Your task to perform on an android device: allow cookies in the chrome app Image 0: 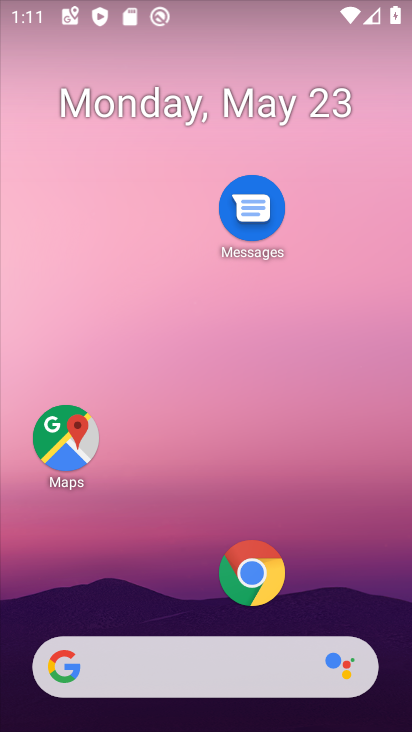
Step 0: drag from (200, 552) to (229, 98)
Your task to perform on an android device: allow cookies in the chrome app Image 1: 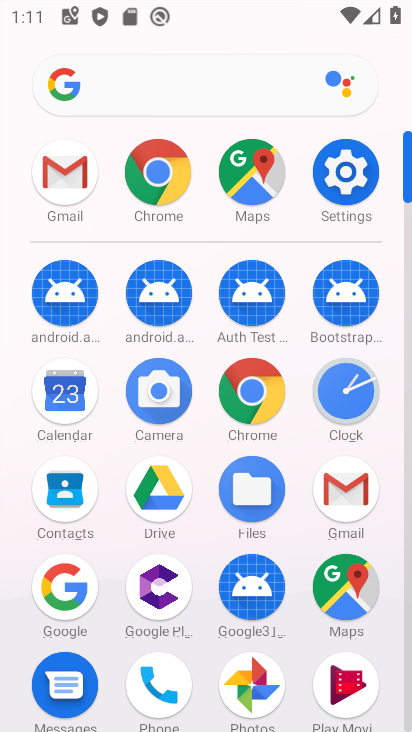
Step 1: click (178, 159)
Your task to perform on an android device: allow cookies in the chrome app Image 2: 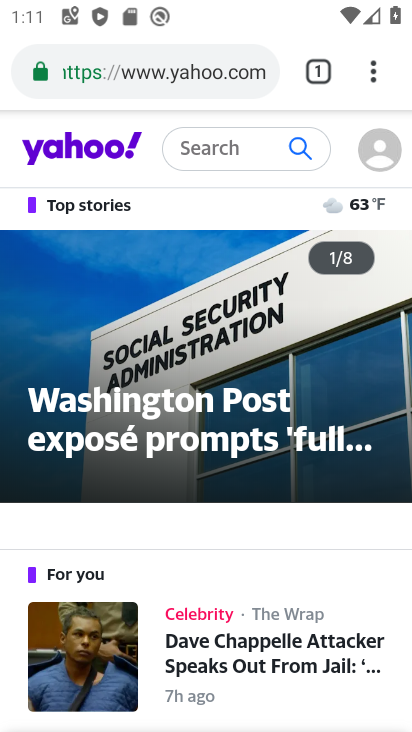
Step 2: click (369, 77)
Your task to perform on an android device: allow cookies in the chrome app Image 3: 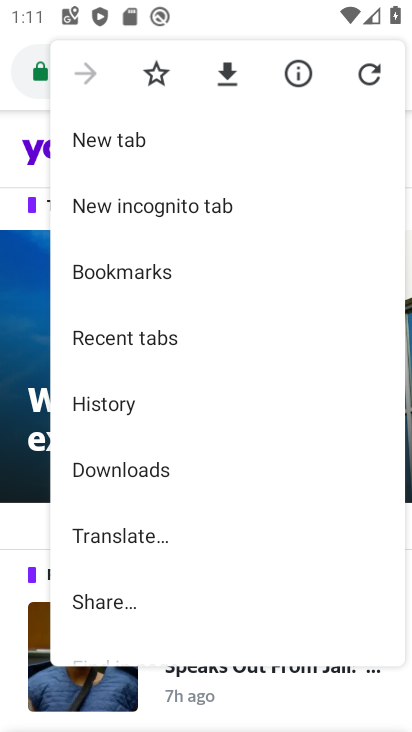
Step 3: drag from (294, 501) to (293, 171)
Your task to perform on an android device: allow cookies in the chrome app Image 4: 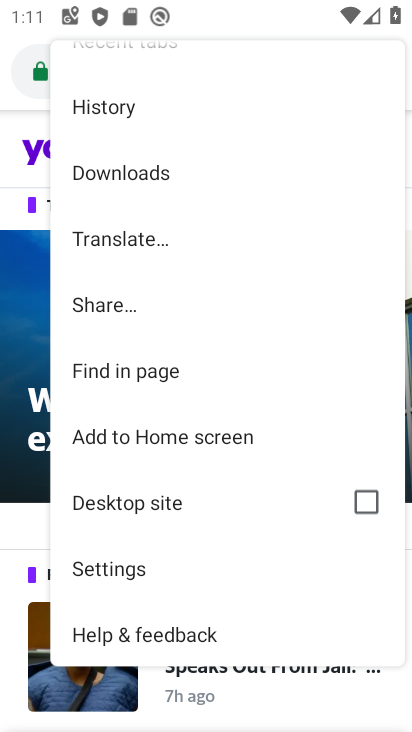
Step 4: click (146, 574)
Your task to perform on an android device: allow cookies in the chrome app Image 5: 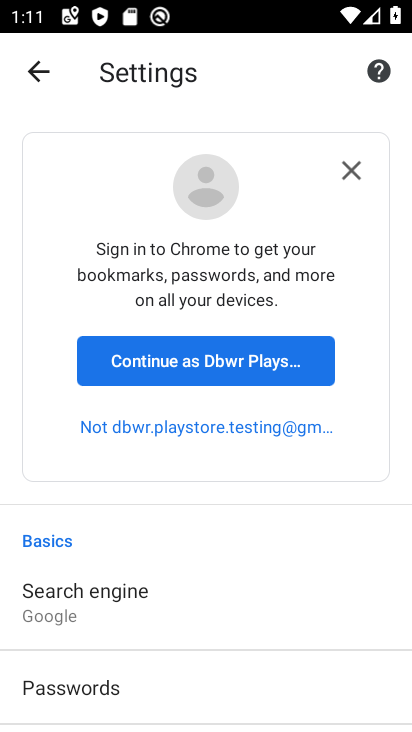
Step 5: drag from (280, 600) to (322, 107)
Your task to perform on an android device: allow cookies in the chrome app Image 6: 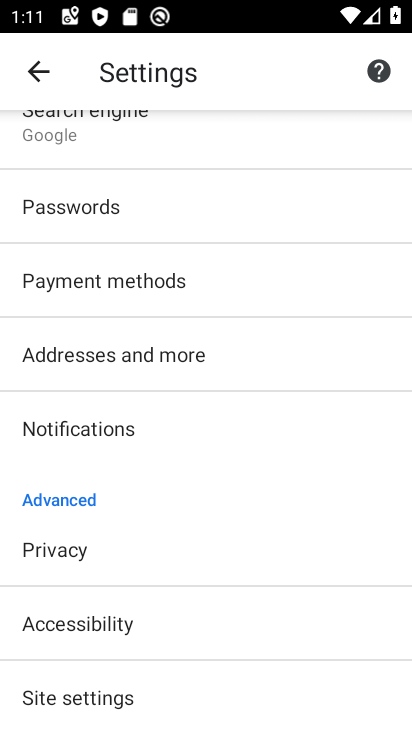
Step 6: drag from (222, 544) to (276, 168)
Your task to perform on an android device: allow cookies in the chrome app Image 7: 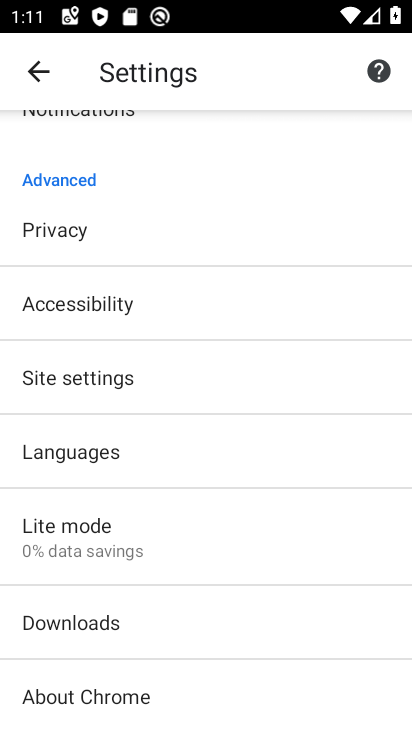
Step 7: drag from (271, 484) to (291, 210)
Your task to perform on an android device: allow cookies in the chrome app Image 8: 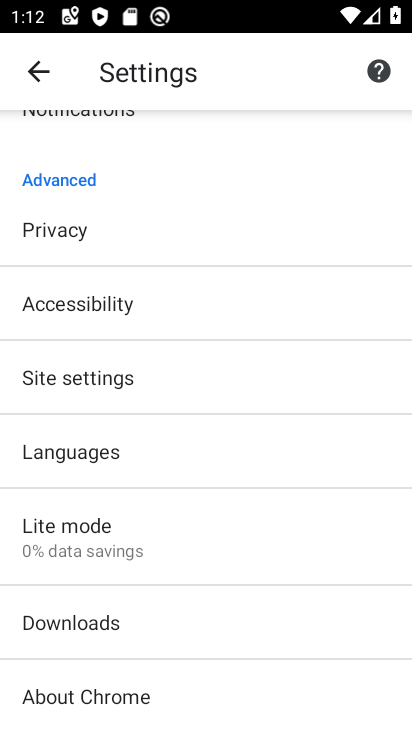
Step 8: drag from (280, 198) to (240, 346)
Your task to perform on an android device: allow cookies in the chrome app Image 9: 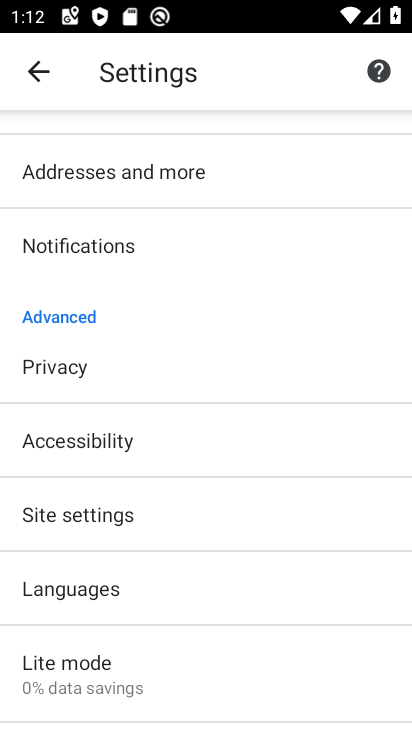
Step 9: click (178, 526)
Your task to perform on an android device: allow cookies in the chrome app Image 10: 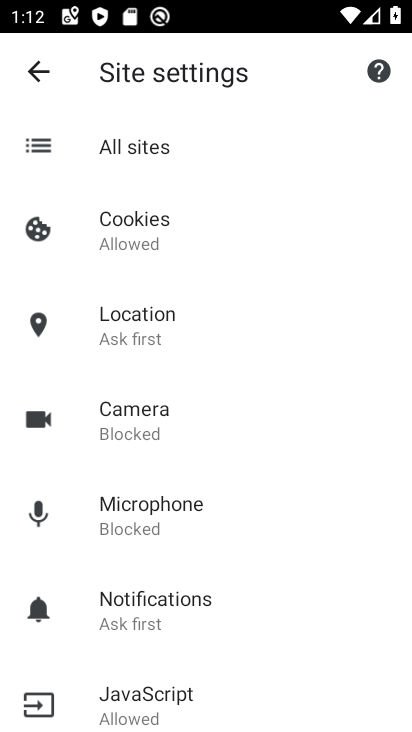
Step 10: click (189, 226)
Your task to perform on an android device: allow cookies in the chrome app Image 11: 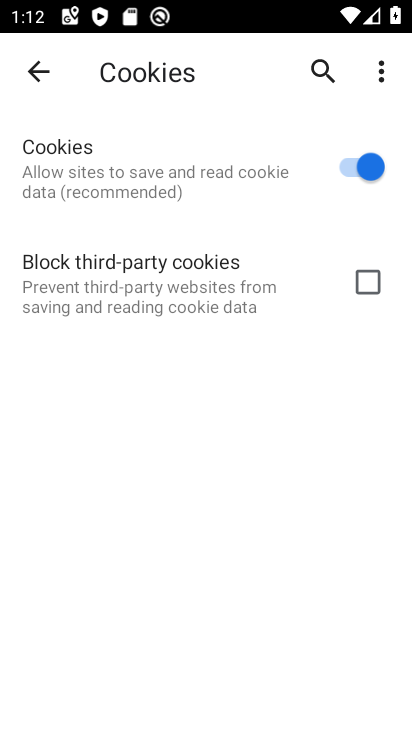
Step 11: task complete